Your task to perform on an android device: turn on priority inbox in the gmail app Image 0: 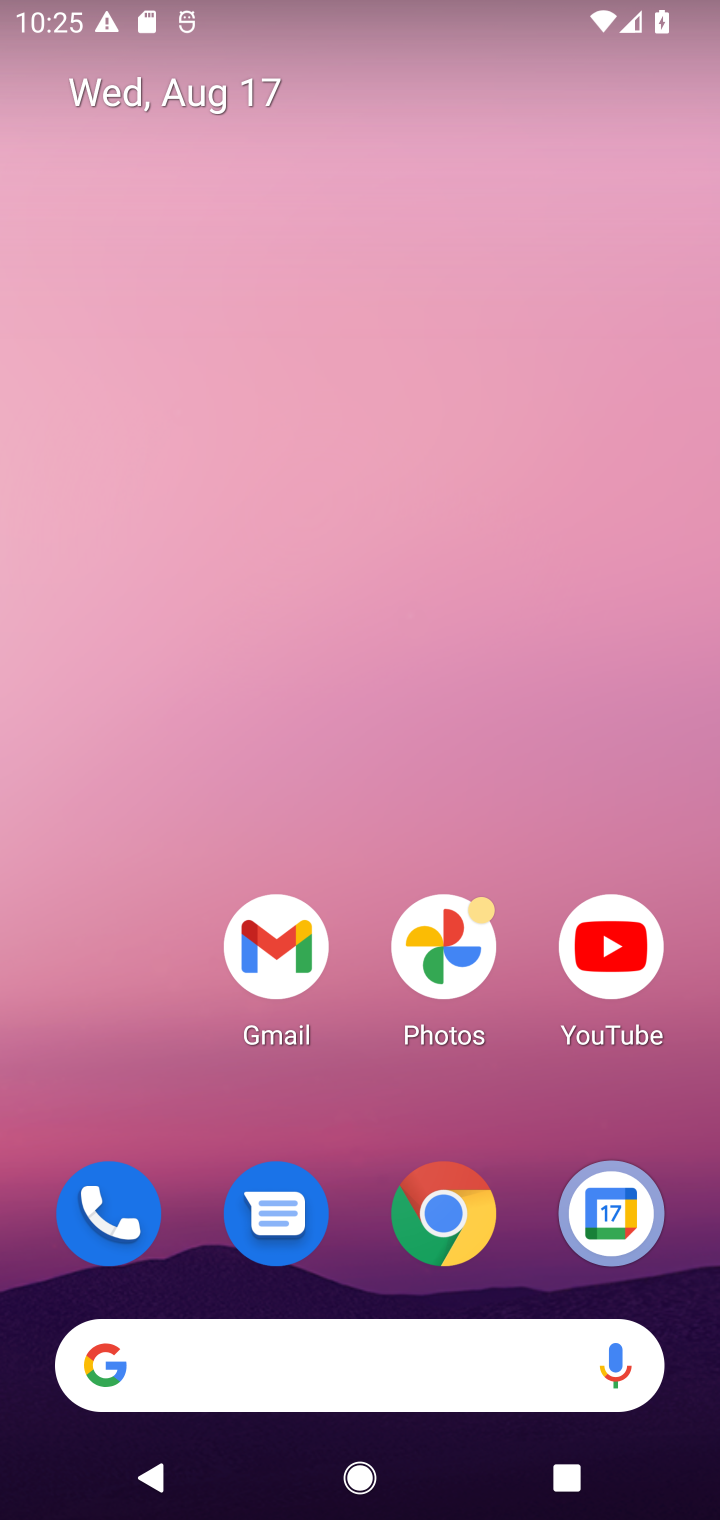
Step 0: drag from (474, 966) to (207, 153)
Your task to perform on an android device: turn on priority inbox in the gmail app Image 1: 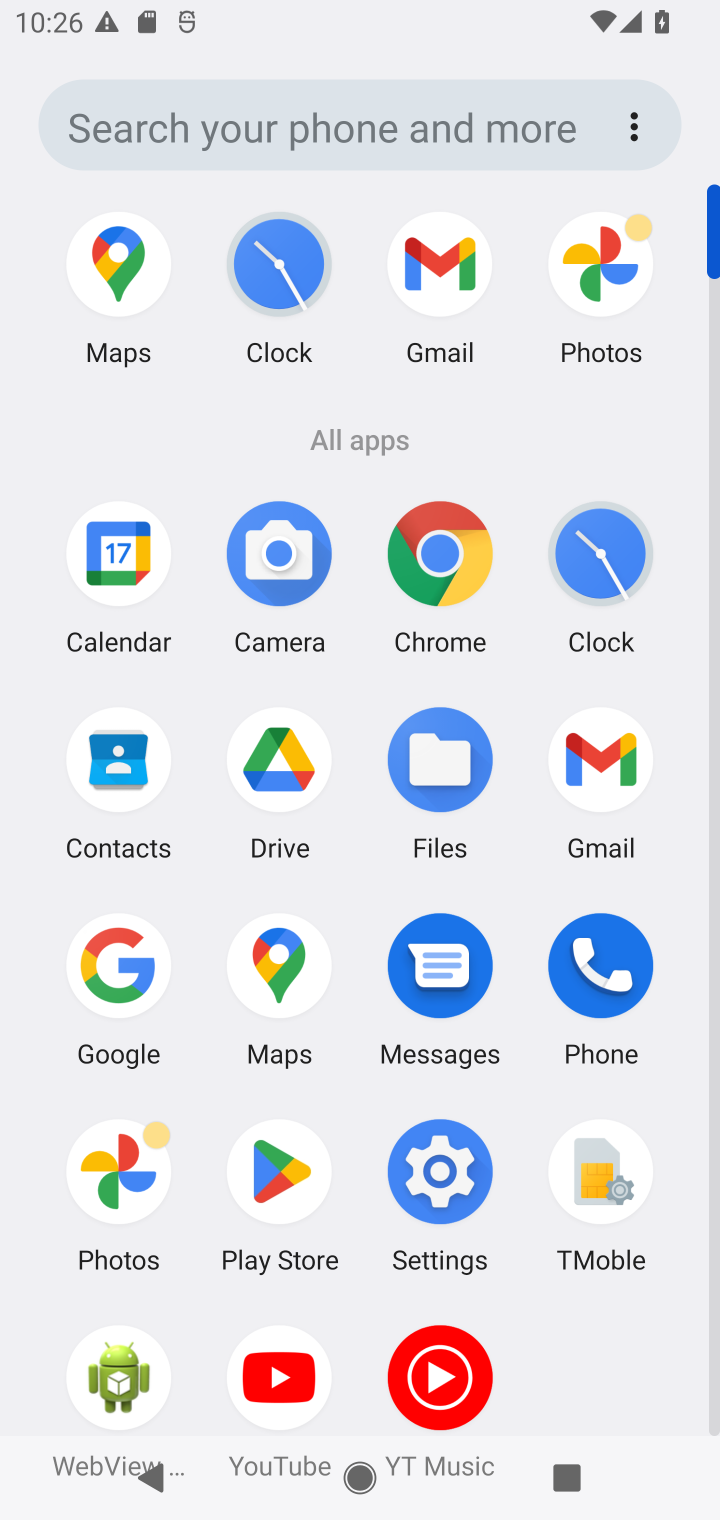
Step 1: click (644, 764)
Your task to perform on an android device: turn on priority inbox in the gmail app Image 2: 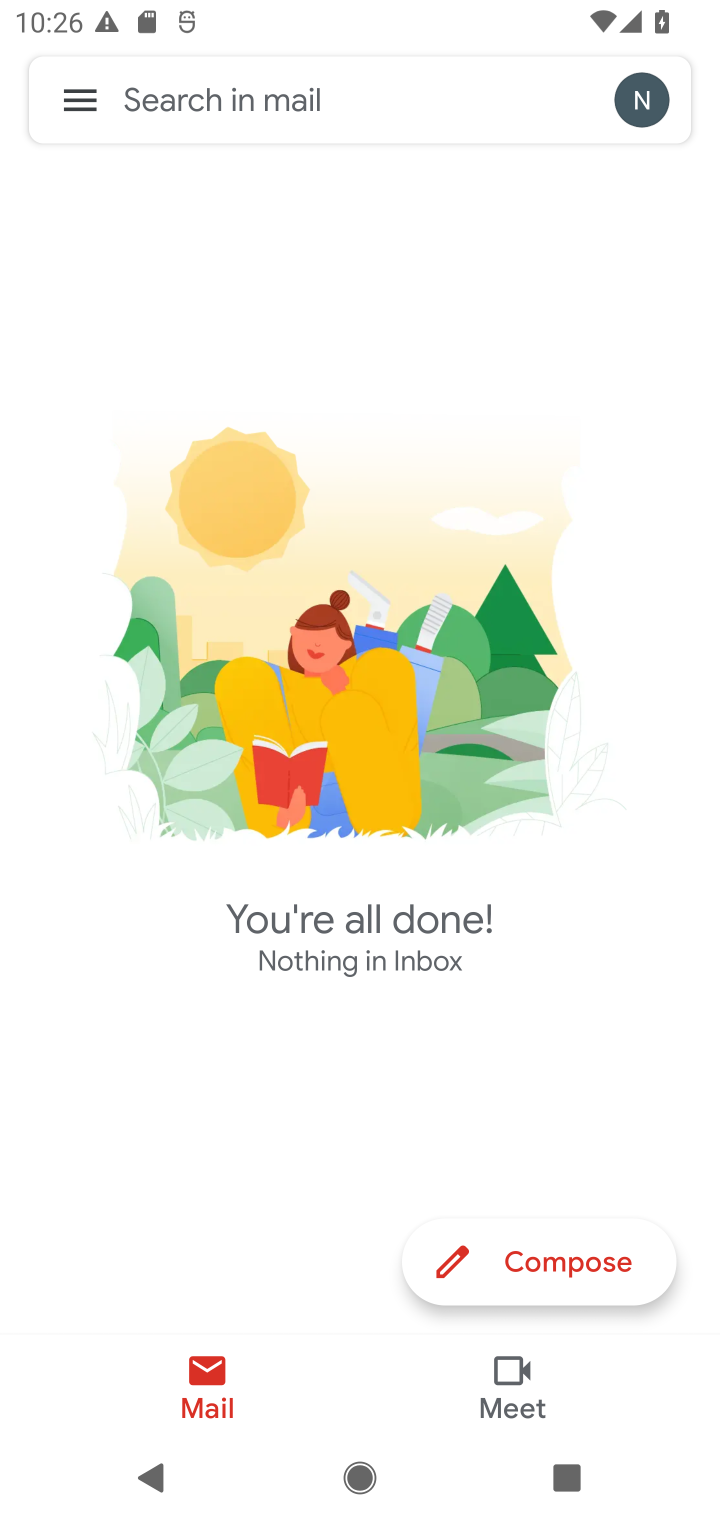
Step 2: click (78, 110)
Your task to perform on an android device: turn on priority inbox in the gmail app Image 3: 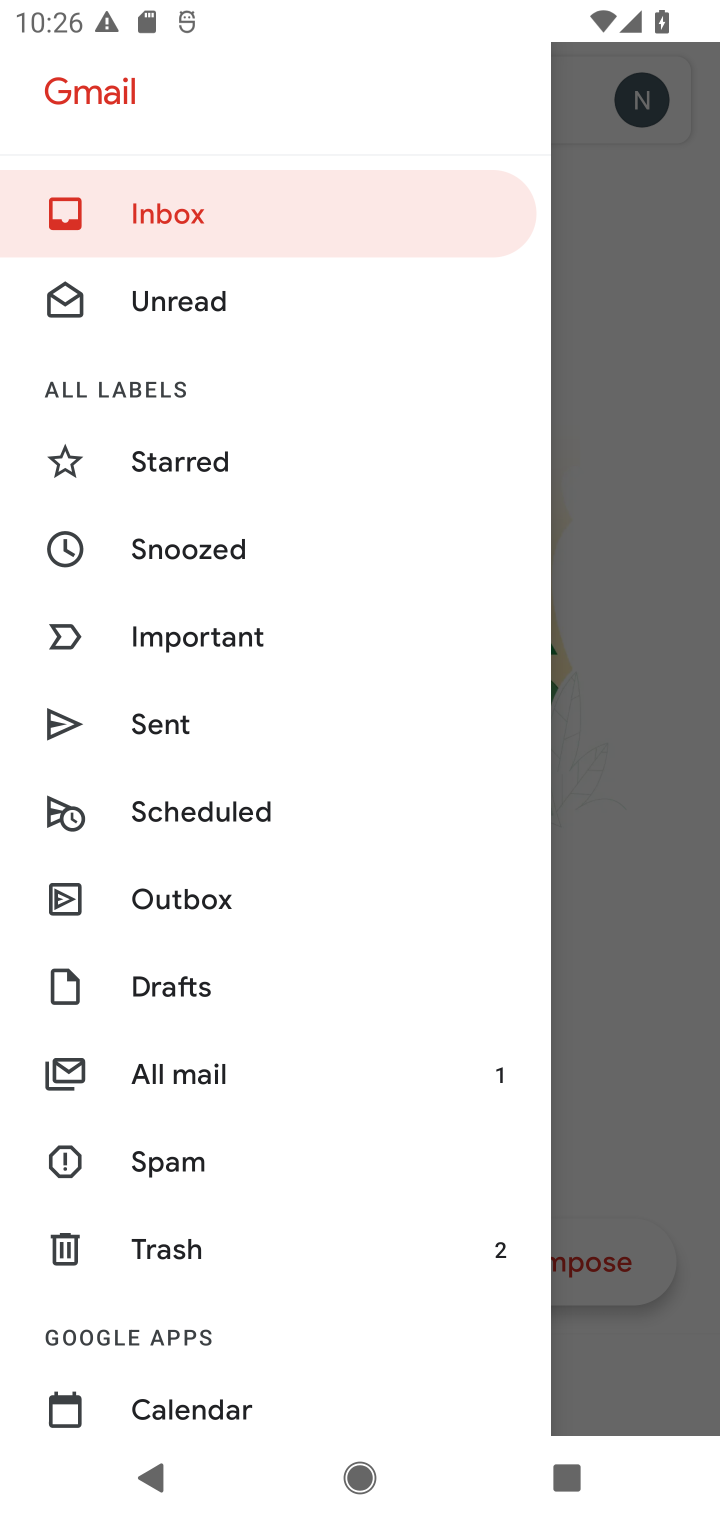
Step 3: drag from (138, 1256) to (239, 146)
Your task to perform on an android device: turn on priority inbox in the gmail app Image 4: 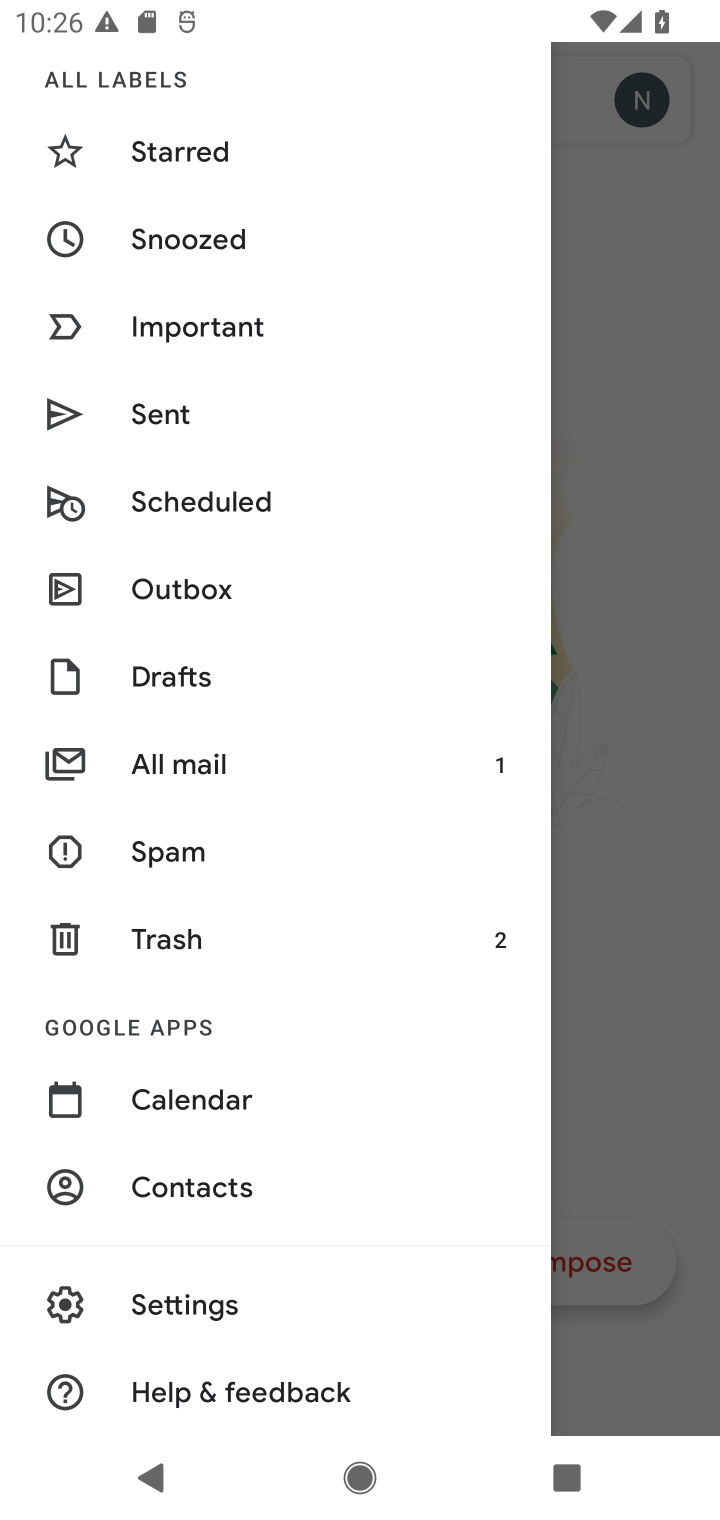
Step 4: click (187, 1310)
Your task to perform on an android device: turn on priority inbox in the gmail app Image 5: 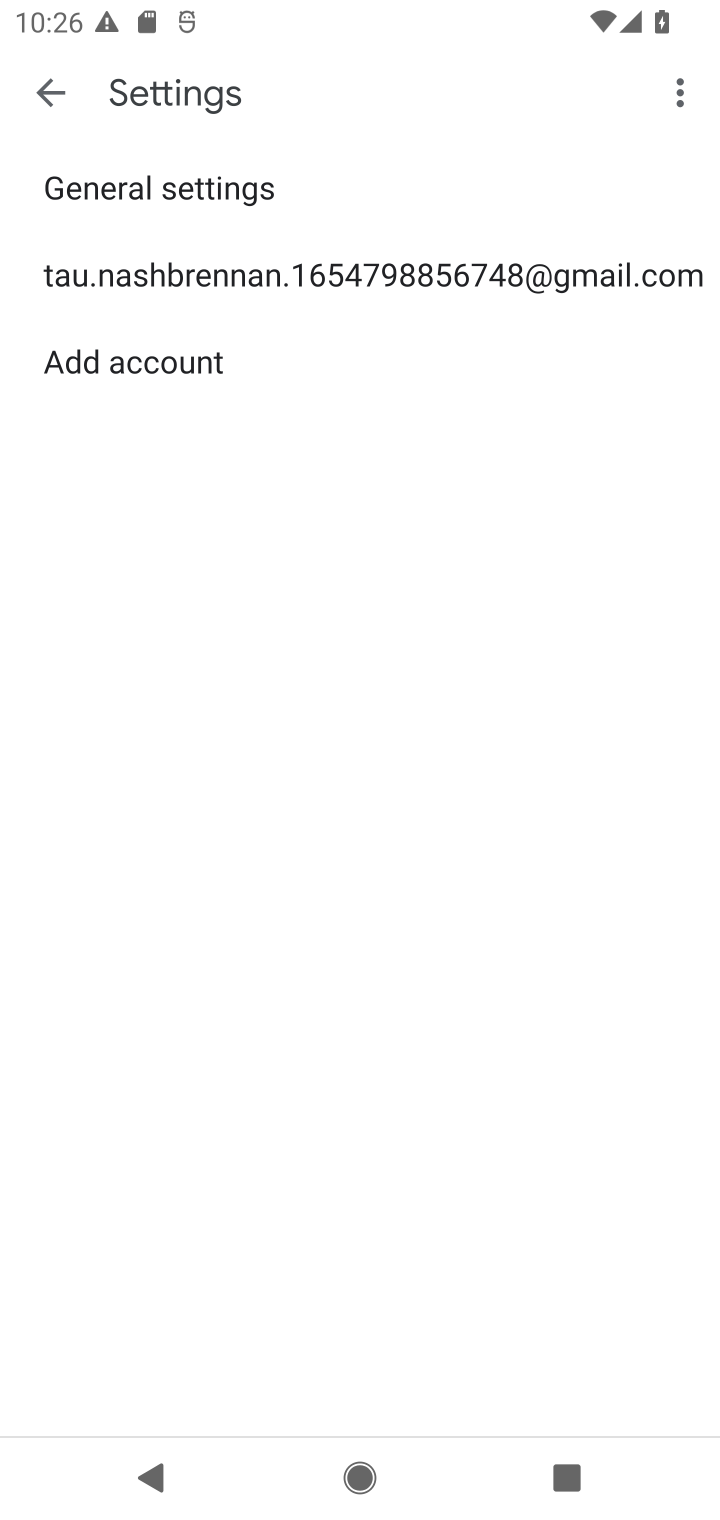
Step 5: click (345, 259)
Your task to perform on an android device: turn on priority inbox in the gmail app Image 6: 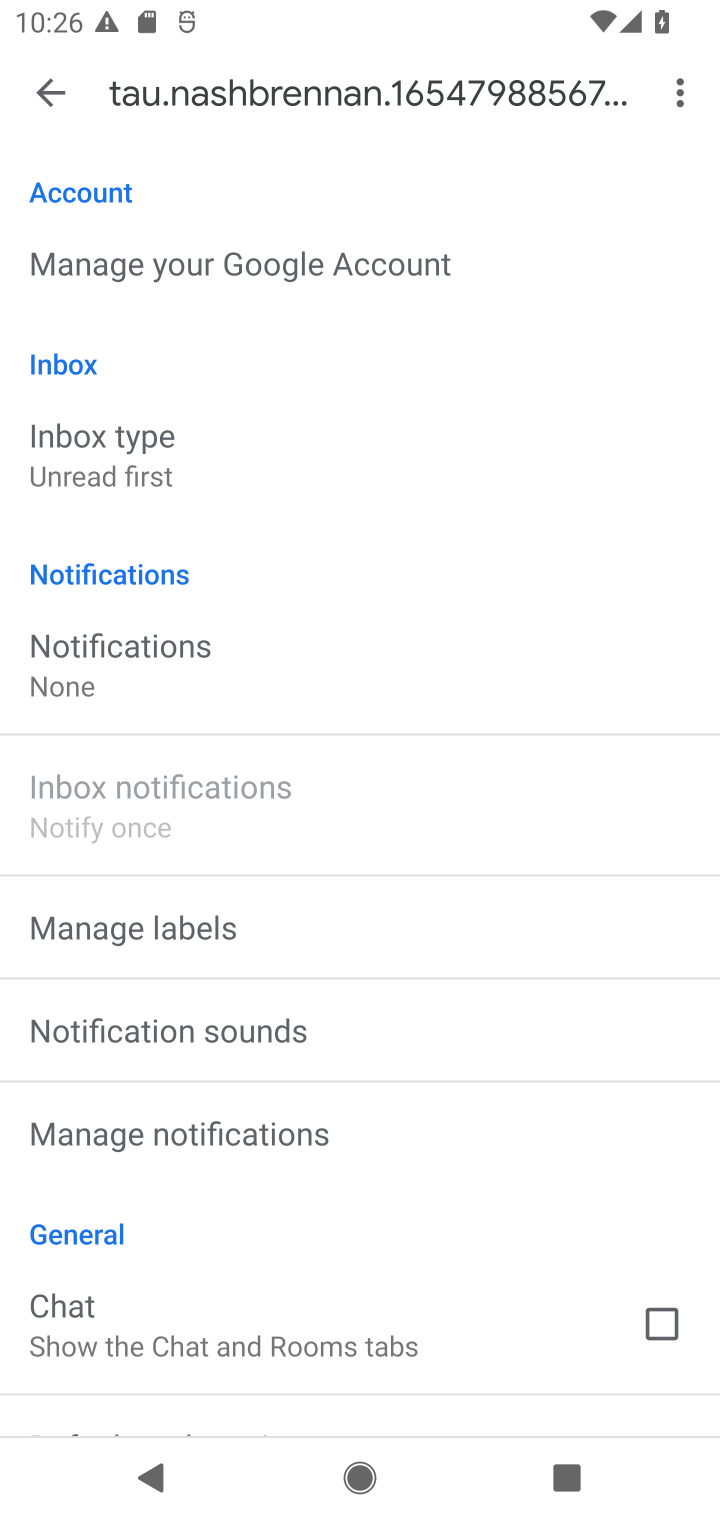
Step 6: click (205, 446)
Your task to perform on an android device: turn on priority inbox in the gmail app Image 7: 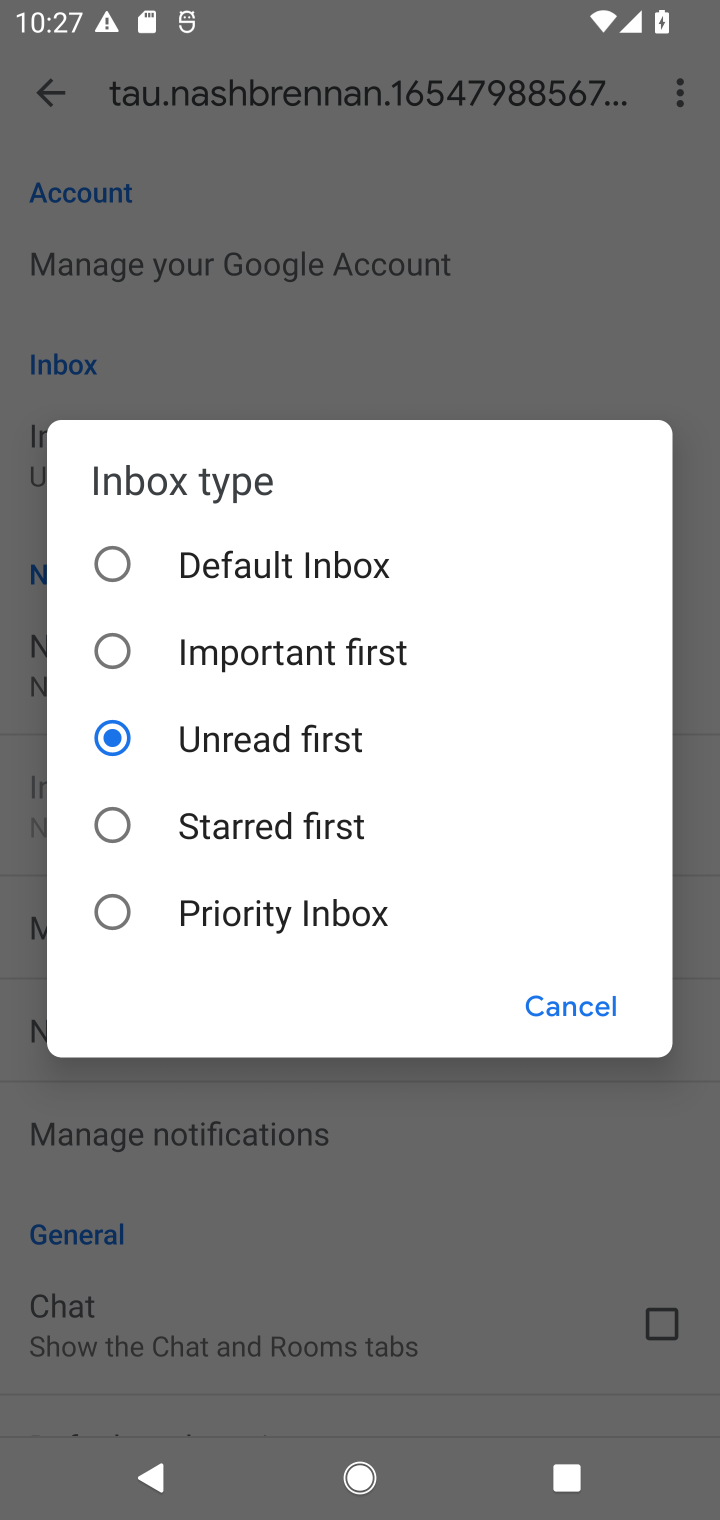
Step 7: click (193, 909)
Your task to perform on an android device: turn on priority inbox in the gmail app Image 8: 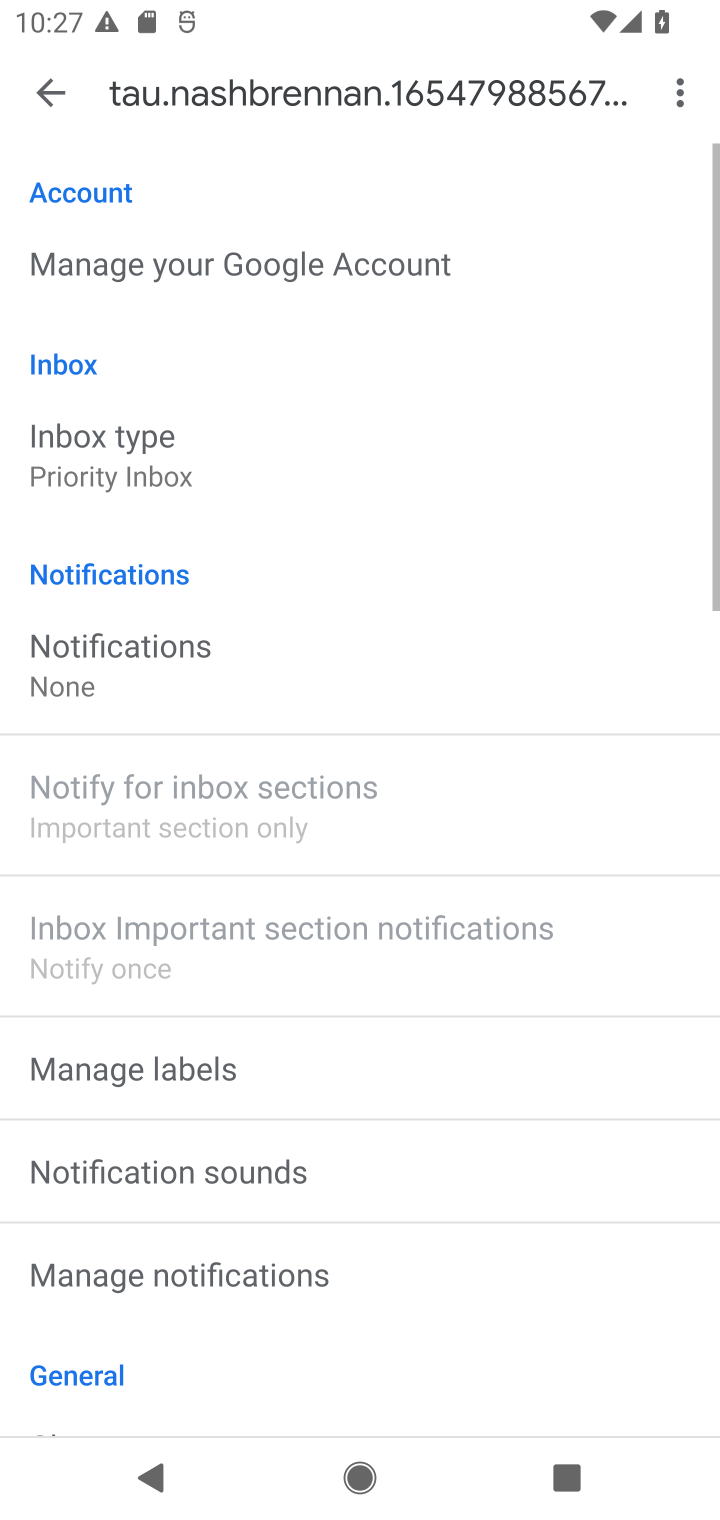
Step 8: task complete